Your task to perform on an android device: open a new tab in the chrome app Image 0: 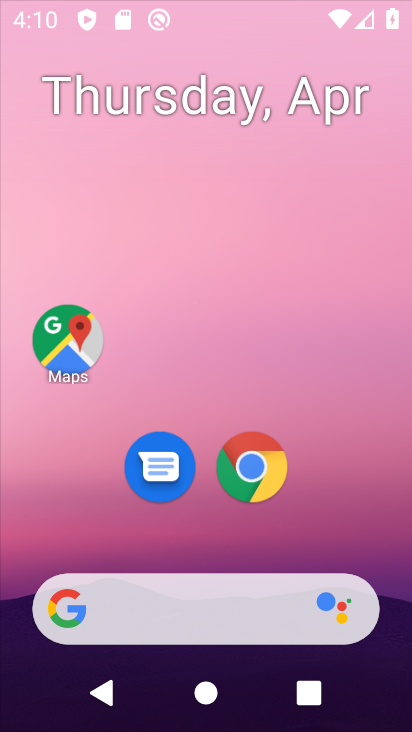
Step 0: click (409, 76)
Your task to perform on an android device: open a new tab in the chrome app Image 1: 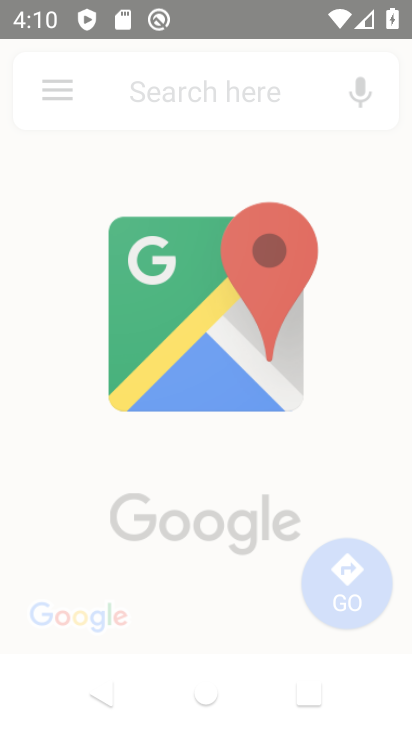
Step 1: drag from (223, 368) to (230, 122)
Your task to perform on an android device: open a new tab in the chrome app Image 2: 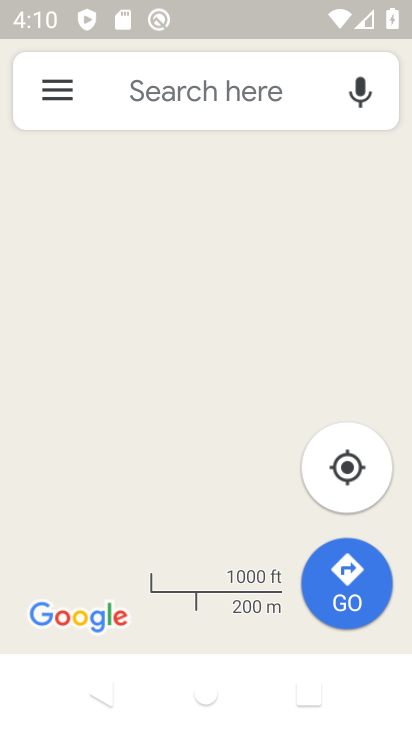
Step 2: press home button
Your task to perform on an android device: open a new tab in the chrome app Image 3: 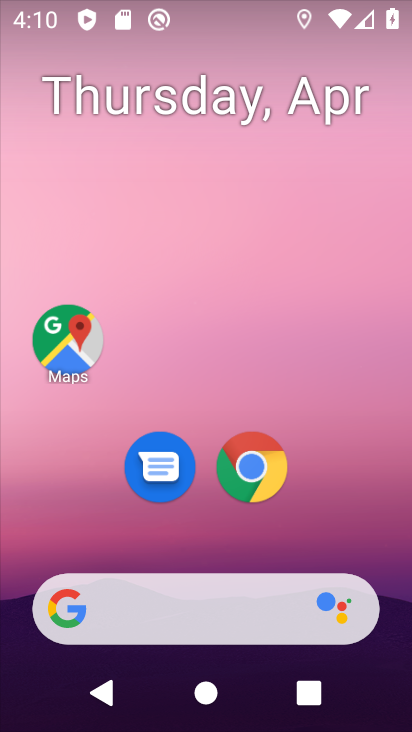
Step 3: click (271, 449)
Your task to perform on an android device: open a new tab in the chrome app Image 4: 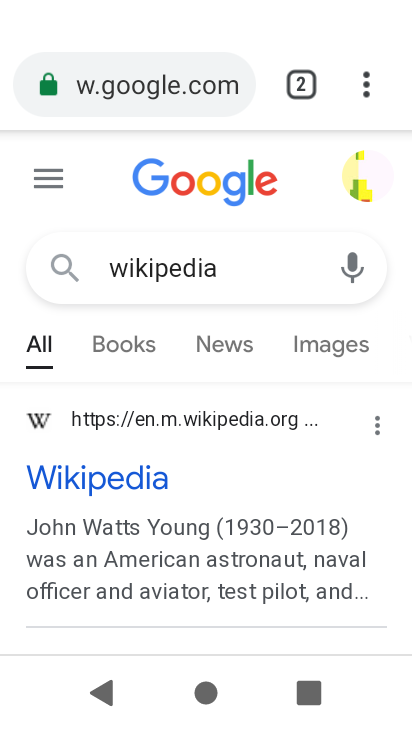
Step 4: click (372, 91)
Your task to perform on an android device: open a new tab in the chrome app Image 5: 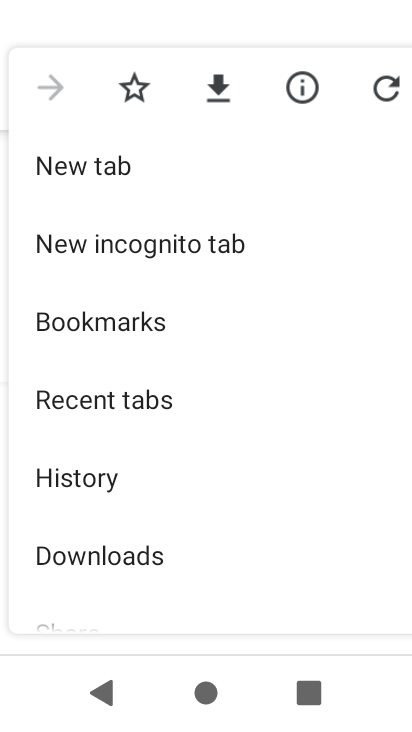
Step 5: click (128, 163)
Your task to perform on an android device: open a new tab in the chrome app Image 6: 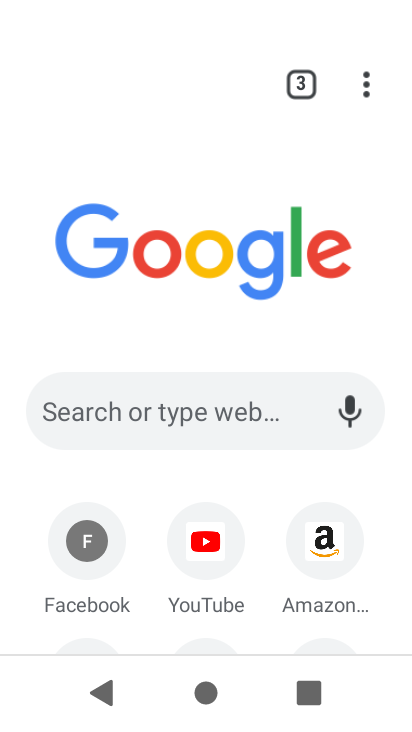
Step 6: task complete